Your task to perform on an android device: turn on airplane mode Image 0: 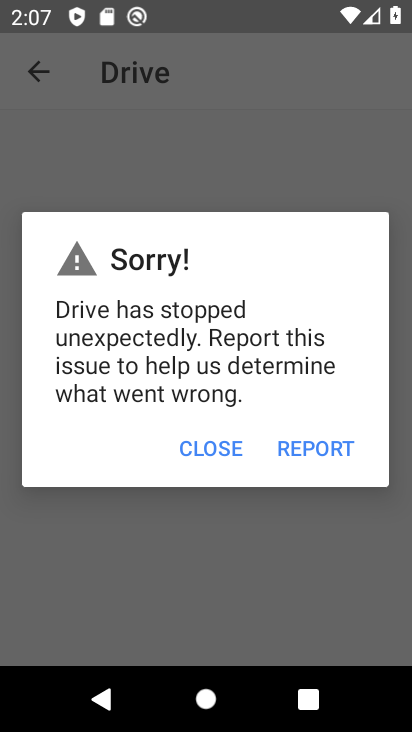
Step 0: drag from (338, 17) to (267, 643)
Your task to perform on an android device: turn on airplane mode Image 1: 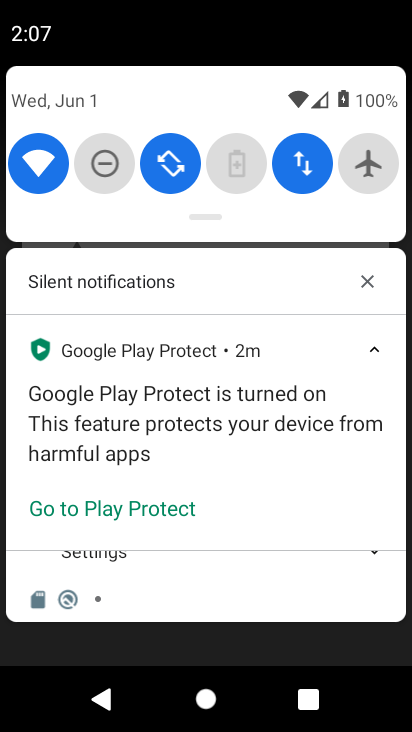
Step 1: click (372, 153)
Your task to perform on an android device: turn on airplane mode Image 2: 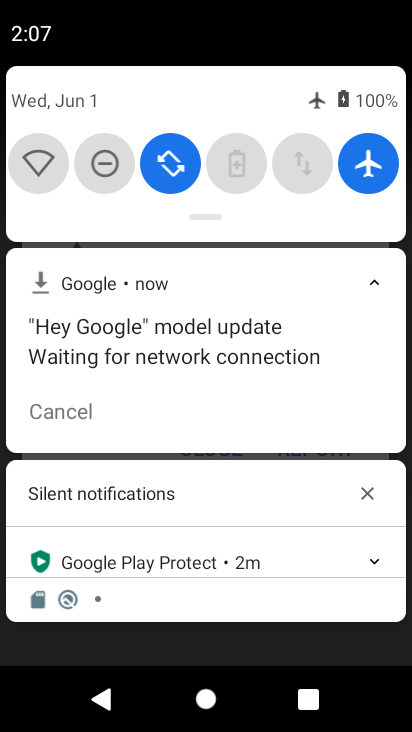
Step 2: task complete